Your task to perform on an android device: change your default location settings in chrome Image 0: 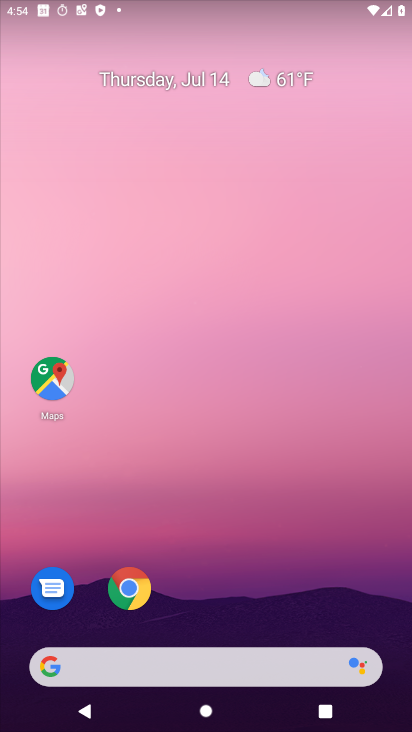
Step 0: click (129, 591)
Your task to perform on an android device: change your default location settings in chrome Image 1: 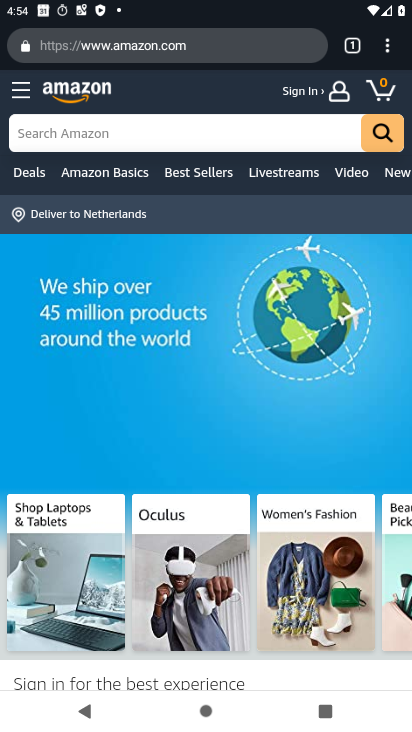
Step 1: click (388, 46)
Your task to perform on an android device: change your default location settings in chrome Image 2: 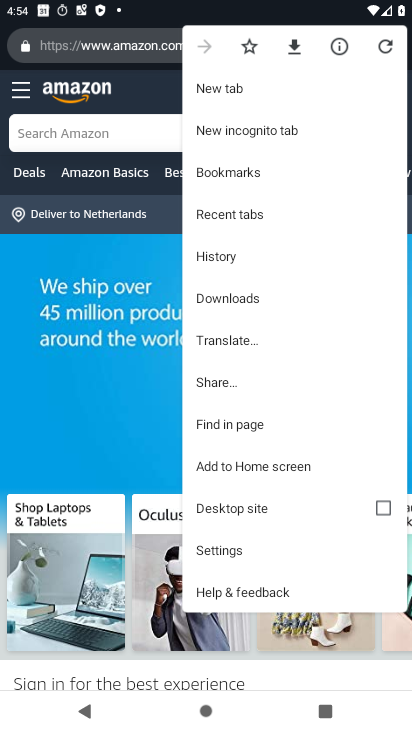
Step 2: click (237, 548)
Your task to perform on an android device: change your default location settings in chrome Image 3: 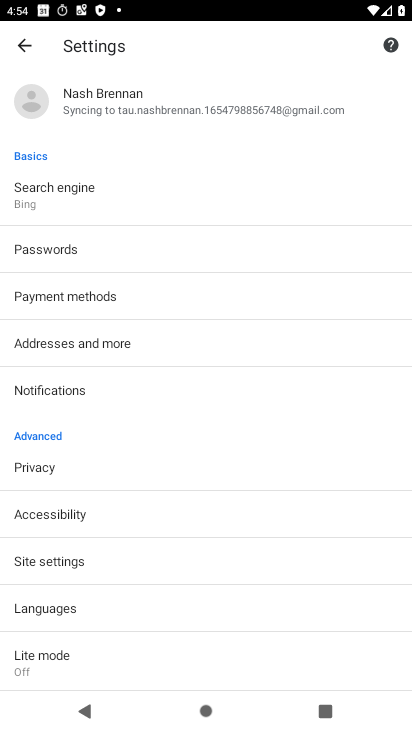
Step 3: click (51, 564)
Your task to perform on an android device: change your default location settings in chrome Image 4: 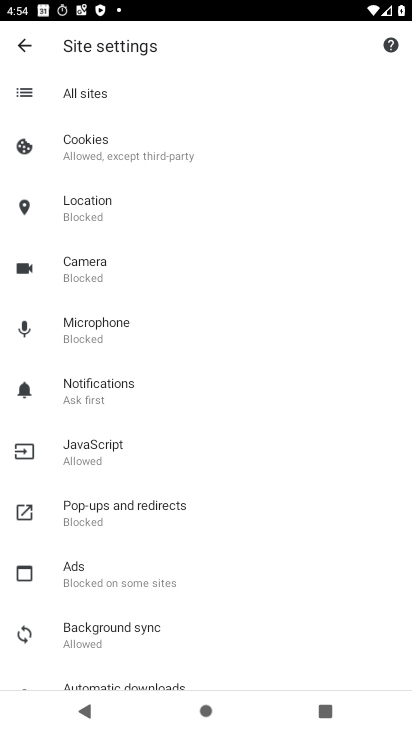
Step 4: click (94, 212)
Your task to perform on an android device: change your default location settings in chrome Image 5: 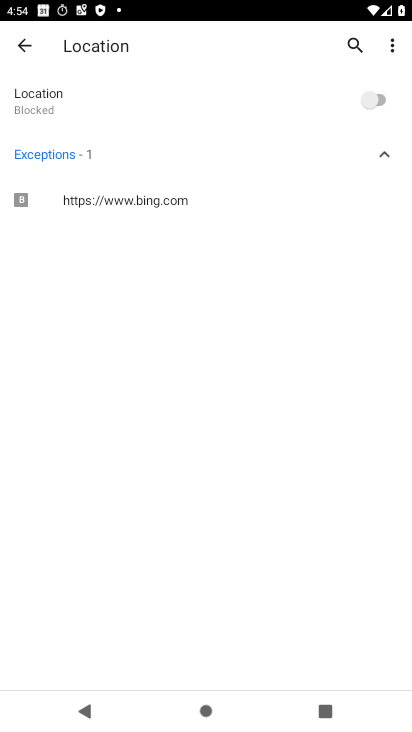
Step 5: click (368, 103)
Your task to perform on an android device: change your default location settings in chrome Image 6: 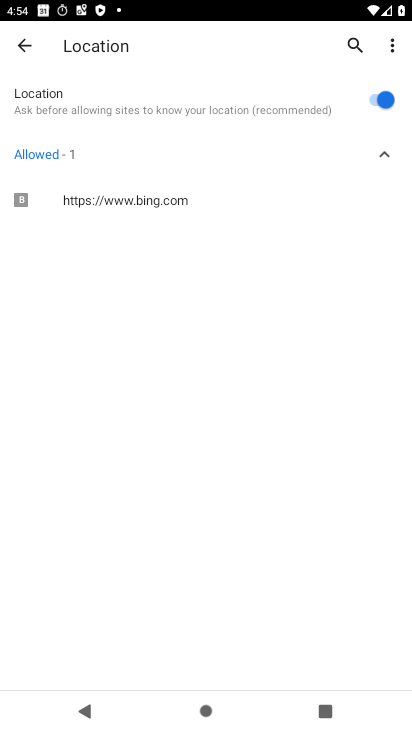
Step 6: task complete